Your task to perform on an android device: empty trash in the gmail app Image 0: 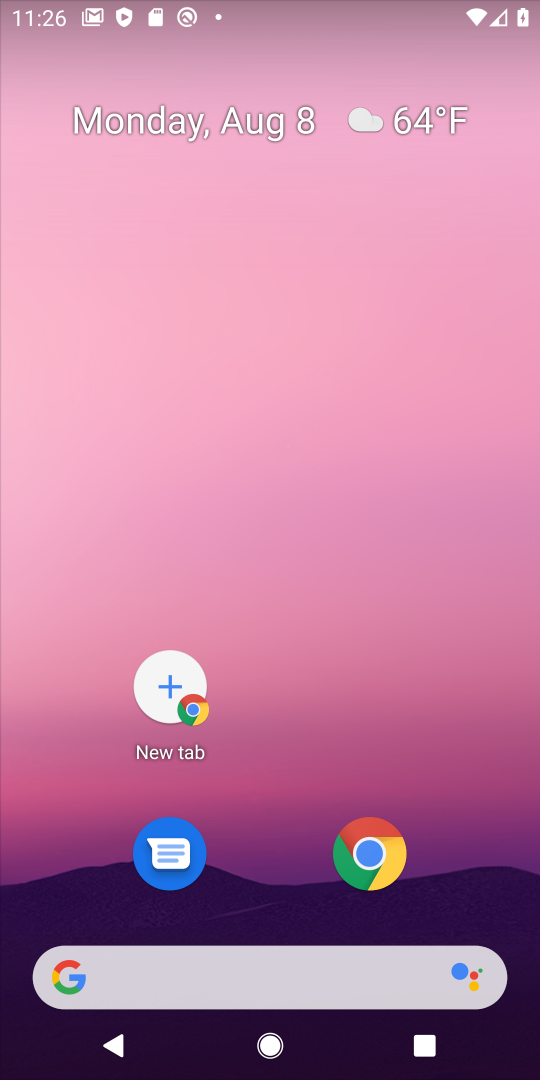
Step 0: drag from (279, 883) to (351, 3)
Your task to perform on an android device: empty trash in the gmail app Image 1: 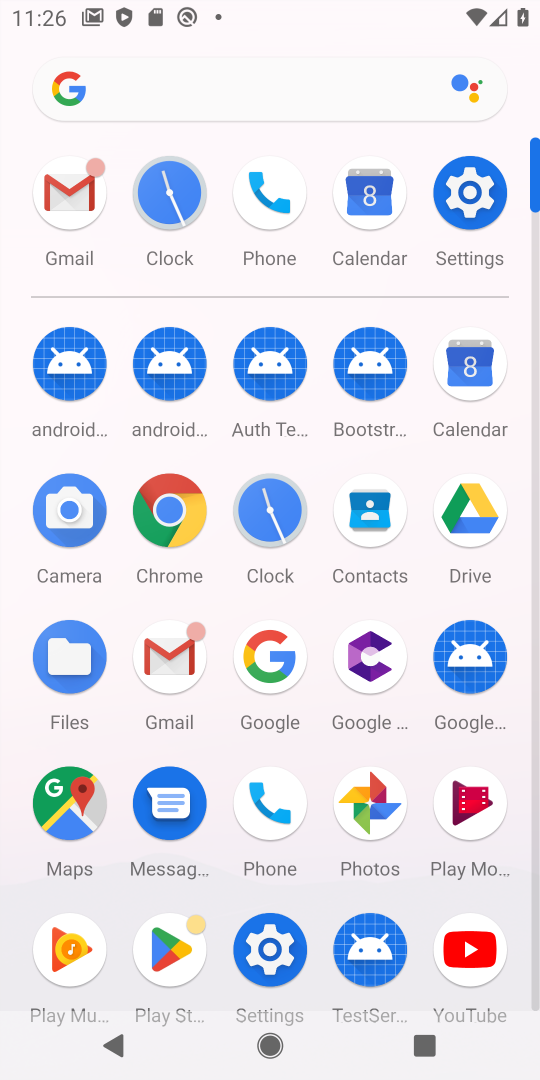
Step 1: click (71, 179)
Your task to perform on an android device: empty trash in the gmail app Image 2: 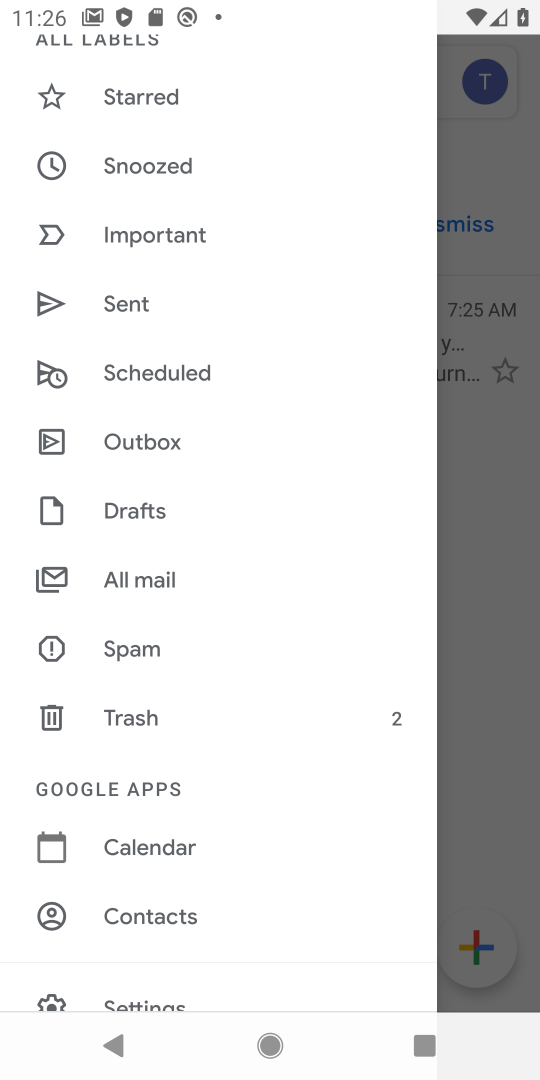
Step 2: click (128, 711)
Your task to perform on an android device: empty trash in the gmail app Image 3: 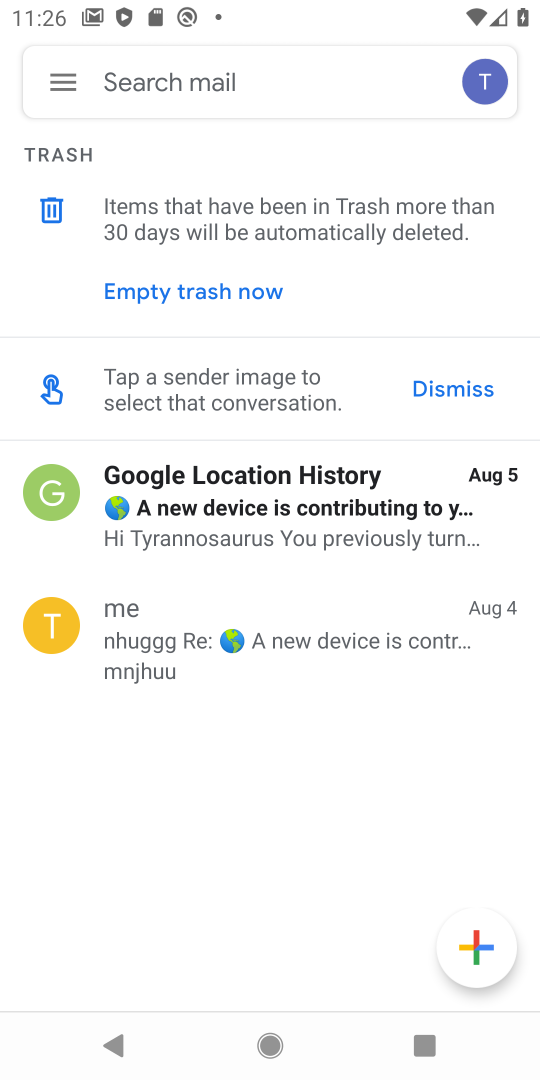
Step 3: click (192, 287)
Your task to perform on an android device: empty trash in the gmail app Image 4: 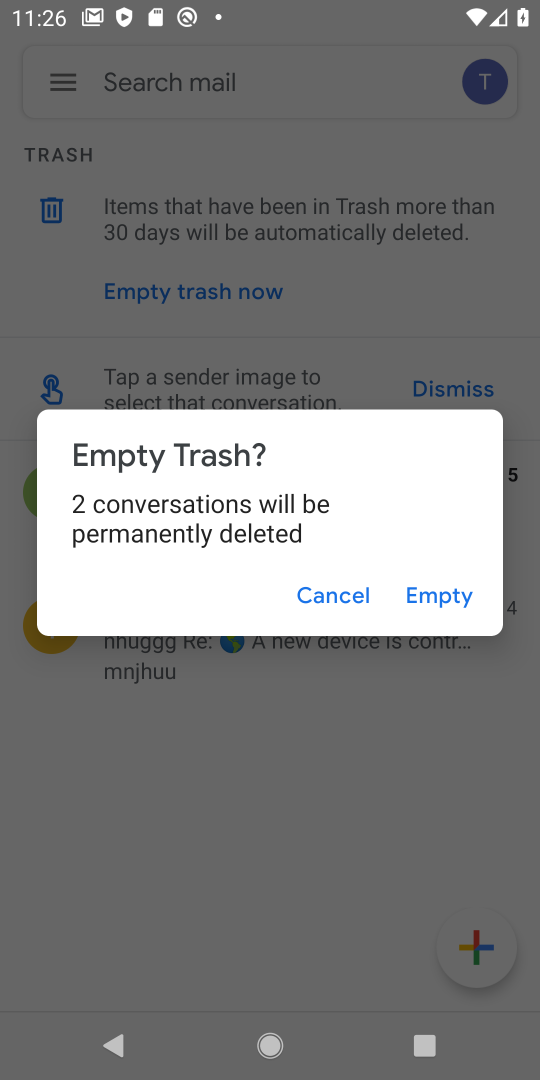
Step 4: click (412, 598)
Your task to perform on an android device: empty trash in the gmail app Image 5: 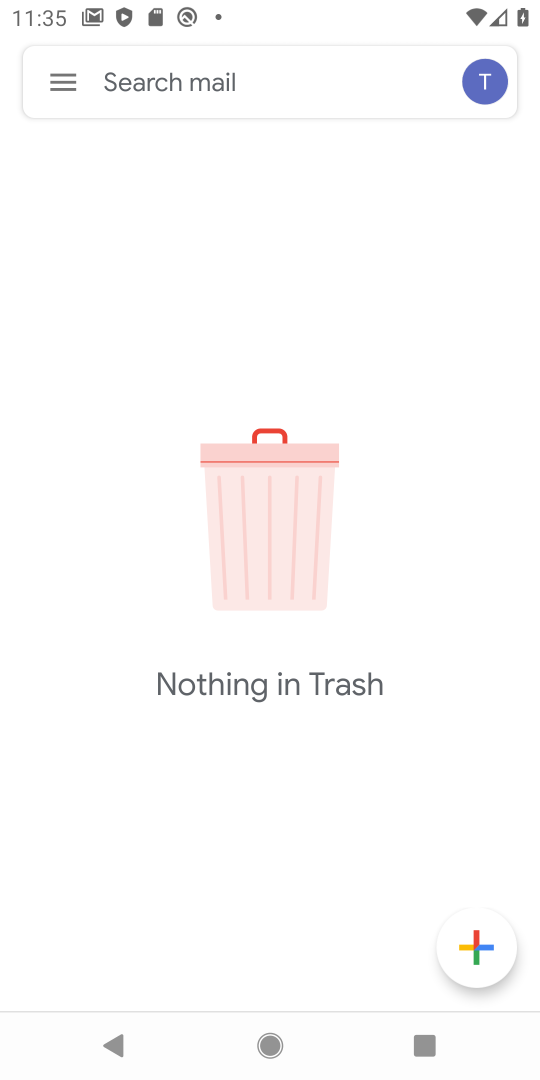
Step 5: task complete